Your task to perform on an android device: Open accessibility settings Image 0: 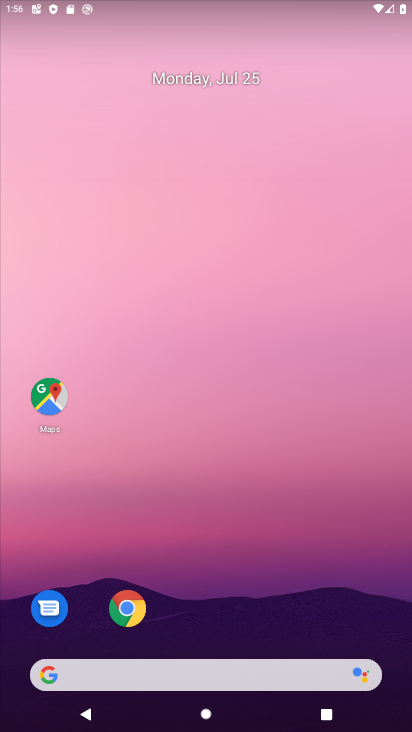
Step 0: drag from (246, 563) to (290, 202)
Your task to perform on an android device: Open accessibility settings Image 1: 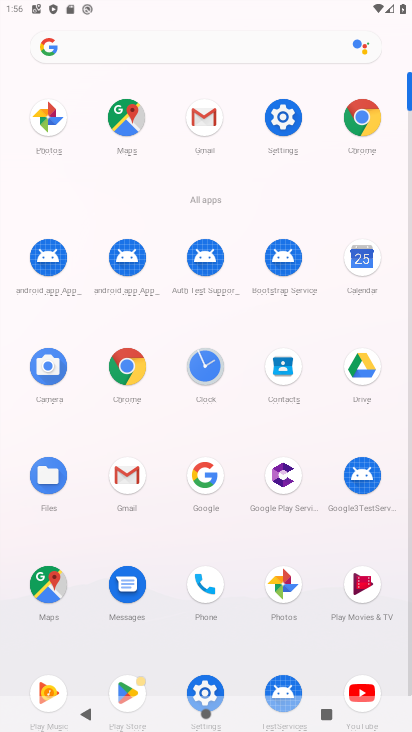
Step 1: click (280, 126)
Your task to perform on an android device: Open accessibility settings Image 2: 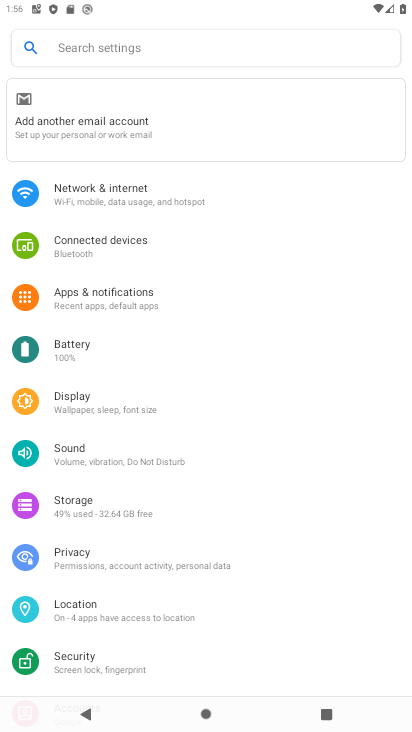
Step 2: drag from (225, 625) to (245, 261)
Your task to perform on an android device: Open accessibility settings Image 3: 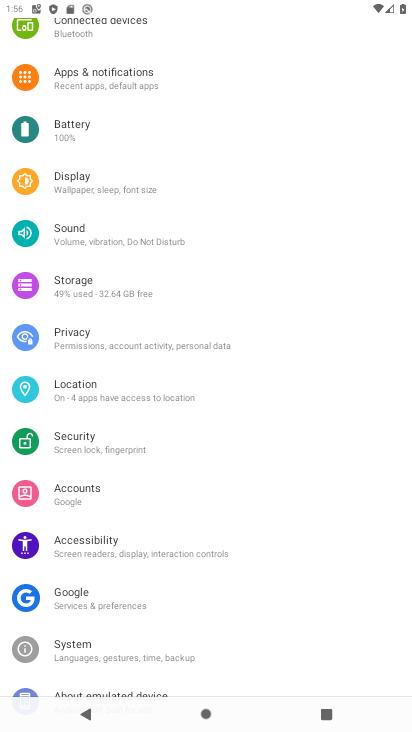
Step 3: click (142, 537)
Your task to perform on an android device: Open accessibility settings Image 4: 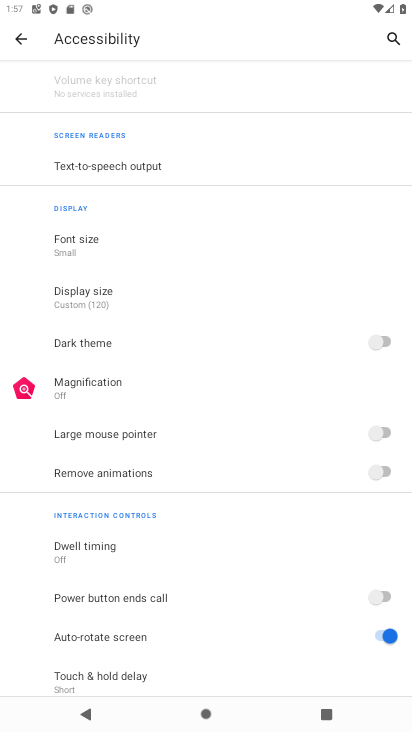
Step 4: task complete